Your task to perform on an android device: turn on the 24-hour format for clock Image 0: 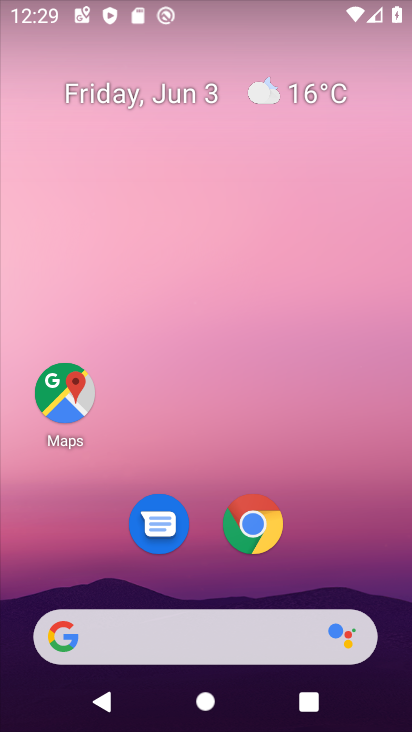
Step 0: drag from (334, 536) to (308, 22)
Your task to perform on an android device: turn on the 24-hour format for clock Image 1: 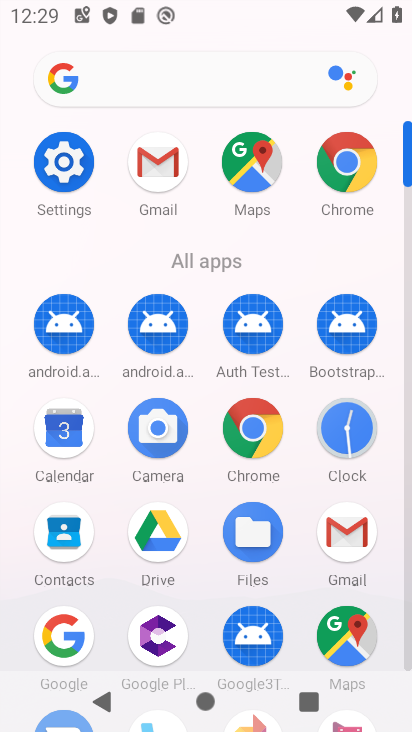
Step 1: click (331, 419)
Your task to perform on an android device: turn on the 24-hour format for clock Image 2: 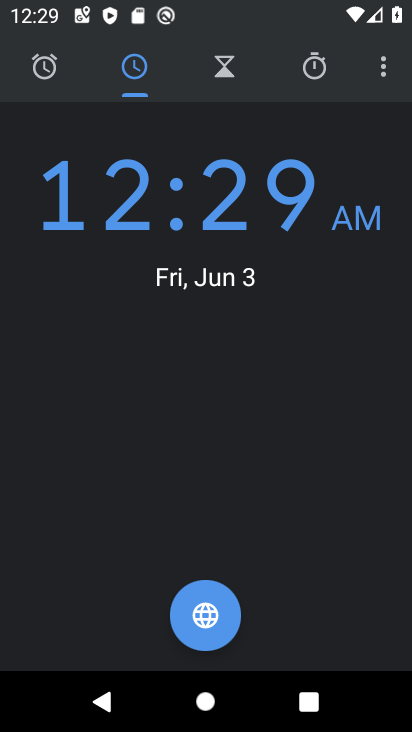
Step 2: click (385, 79)
Your task to perform on an android device: turn on the 24-hour format for clock Image 3: 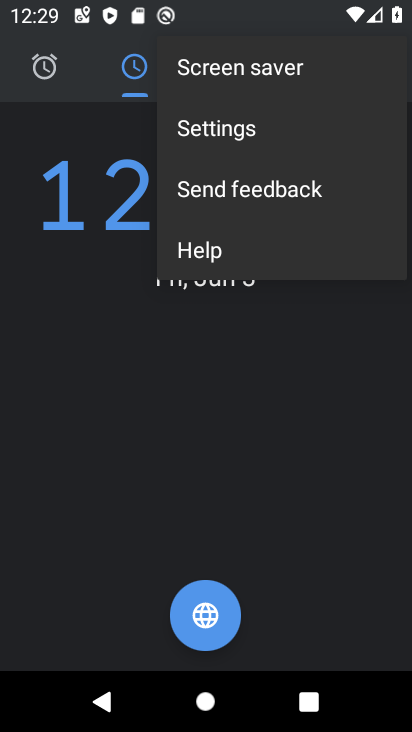
Step 3: click (318, 137)
Your task to perform on an android device: turn on the 24-hour format for clock Image 4: 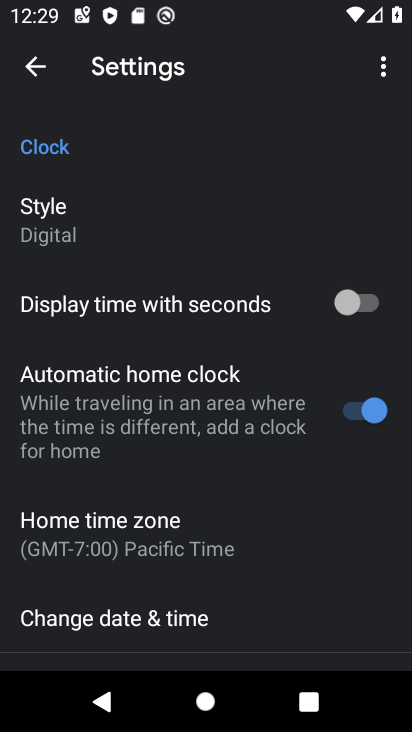
Step 4: click (299, 629)
Your task to perform on an android device: turn on the 24-hour format for clock Image 5: 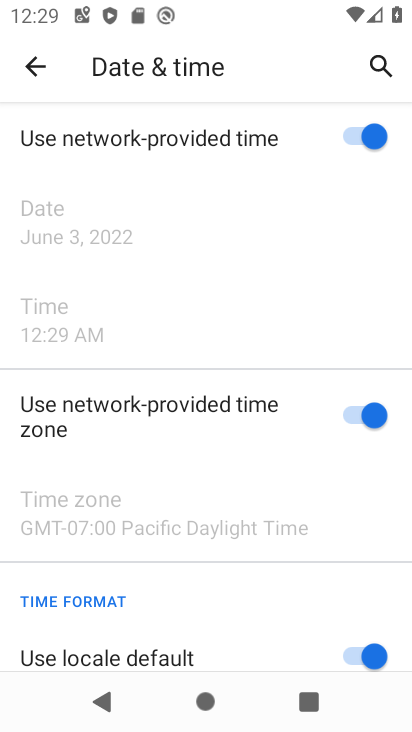
Step 5: drag from (288, 478) to (279, 305)
Your task to perform on an android device: turn on the 24-hour format for clock Image 6: 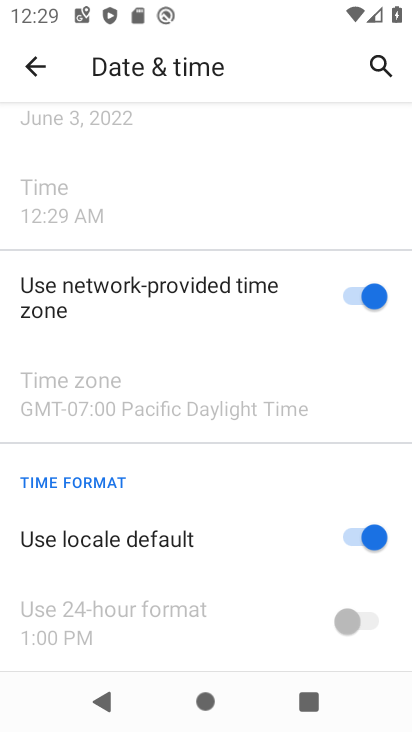
Step 6: click (368, 532)
Your task to perform on an android device: turn on the 24-hour format for clock Image 7: 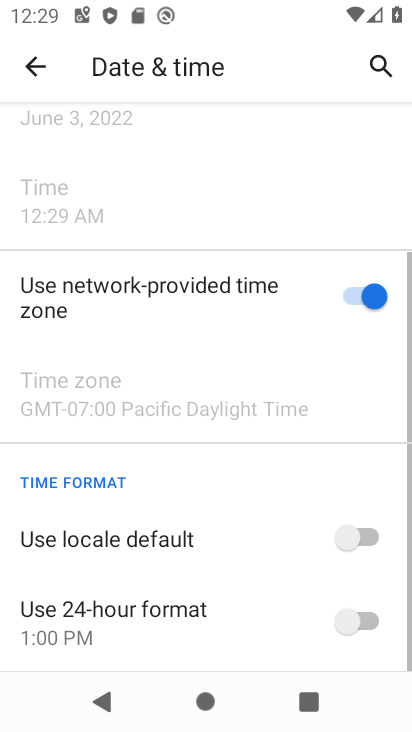
Step 7: click (362, 610)
Your task to perform on an android device: turn on the 24-hour format for clock Image 8: 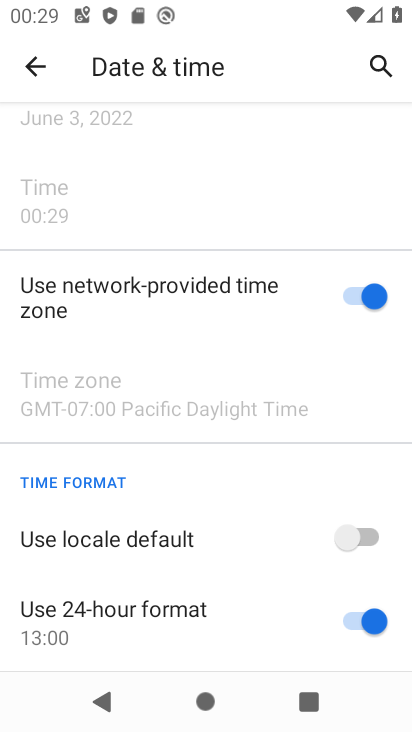
Step 8: task complete